Your task to perform on an android device: Go to battery settings Image 0: 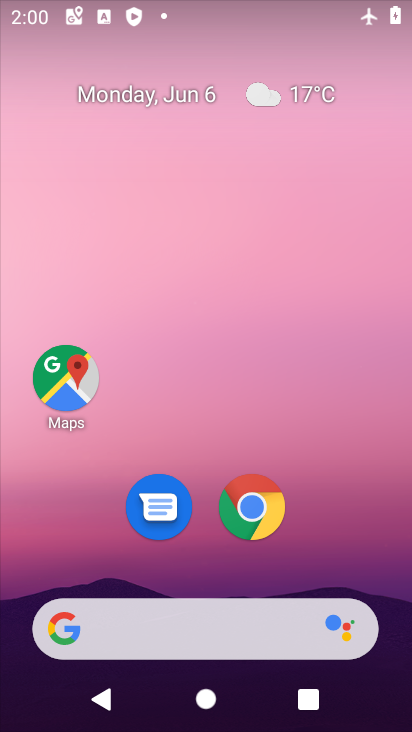
Step 0: drag from (215, 455) to (244, 5)
Your task to perform on an android device: Go to battery settings Image 1: 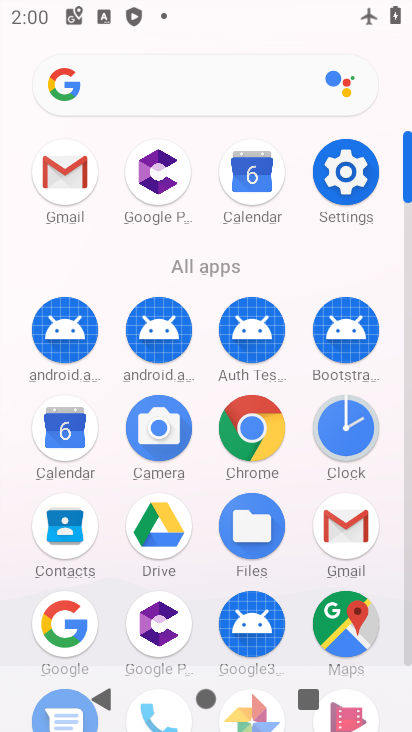
Step 1: click (342, 168)
Your task to perform on an android device: Go to battery settings Image 2: 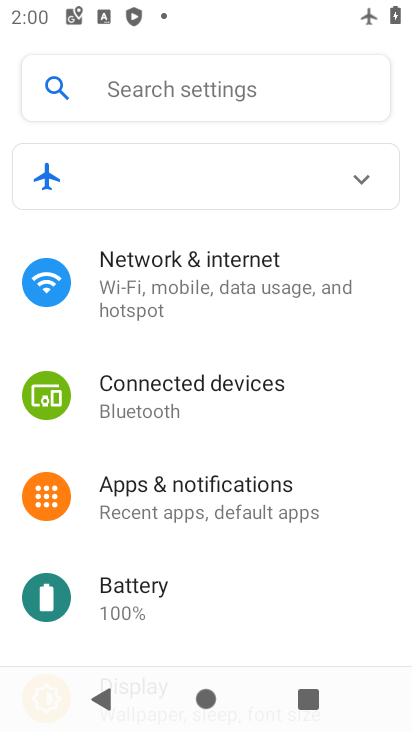
Step 2: click (198, 598)
Your task to perform on an android device: Go to battery settings Image 3: 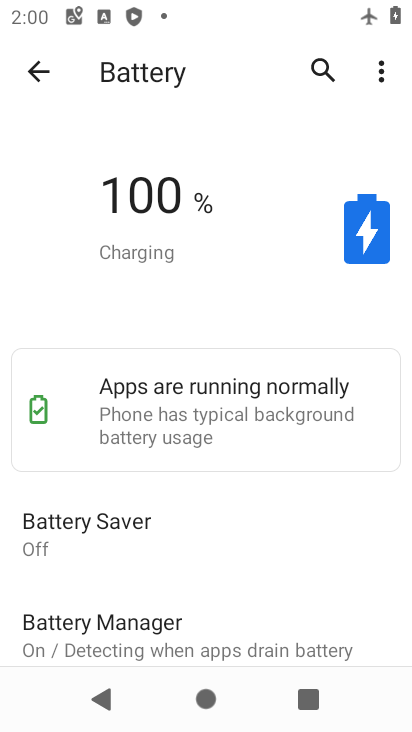
Step 3: task complete